Your task to perform on an android device: turn off data saver in the chrome app Image 0: 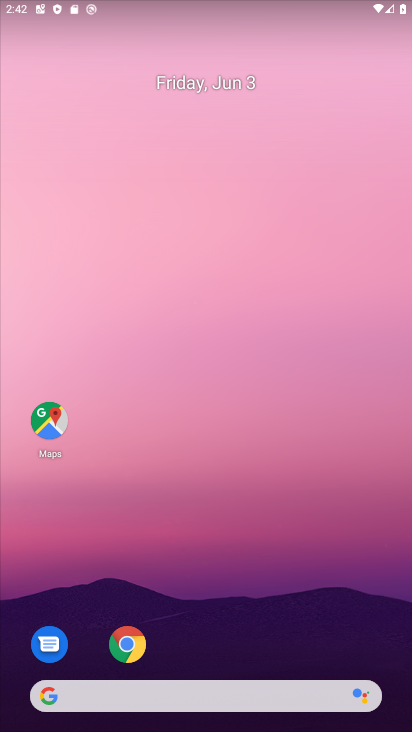
Step 0: click (139, 638)
Your task to perform on an android device: turn off data saver in the chrome app Image 1: 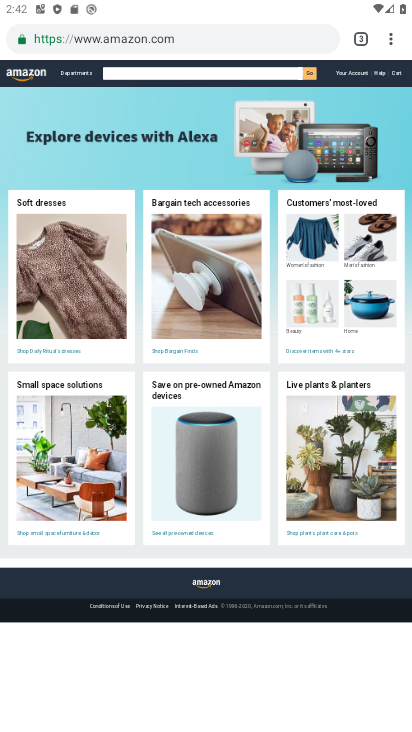
Step 1: click (383, 42)
Your task to perform on an android device: turn off data saver in the chrome app Image 2: 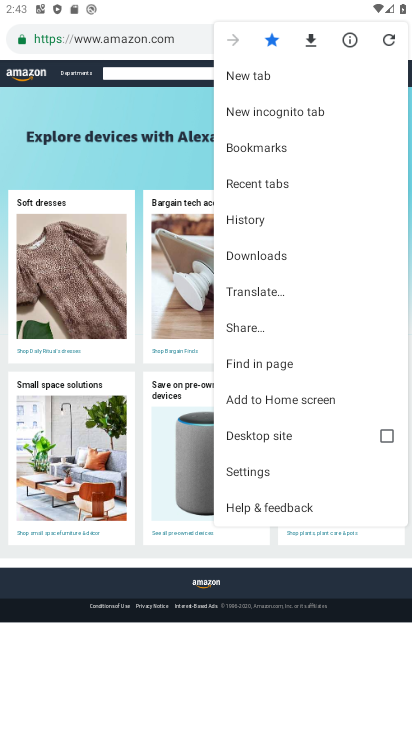
Step 2: click (268, 471)
Your task to perform on an android device: turn off data saver in the chrome app Image 3: 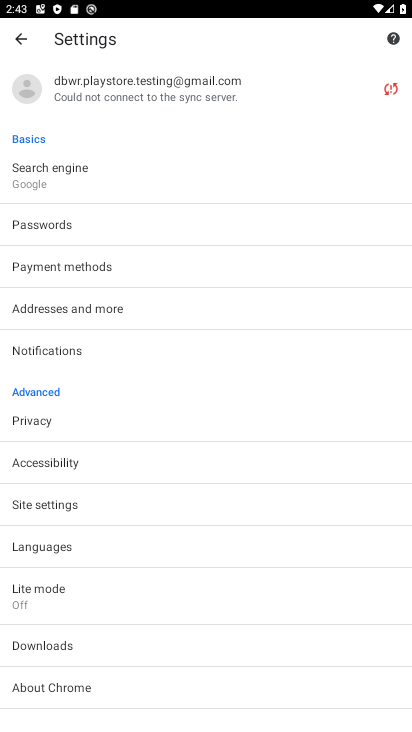
Step 3: click (94, 602)
Your task to perform on an android device: turn off data saver in the chrome app Image 4: 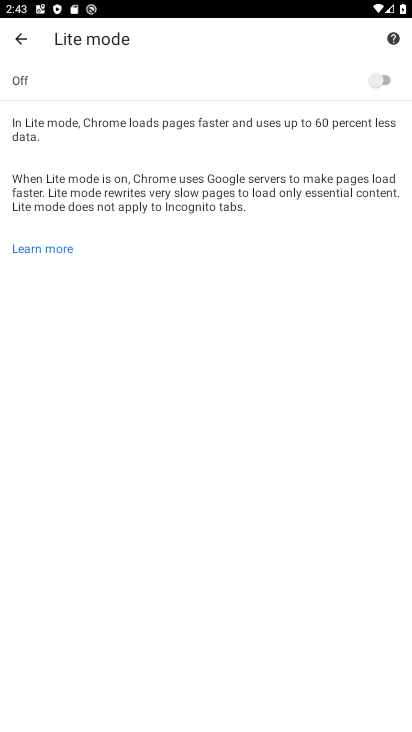
Step 4: task complete